Your task to perform on an android device: snooze an email in the gmail app Image 0: 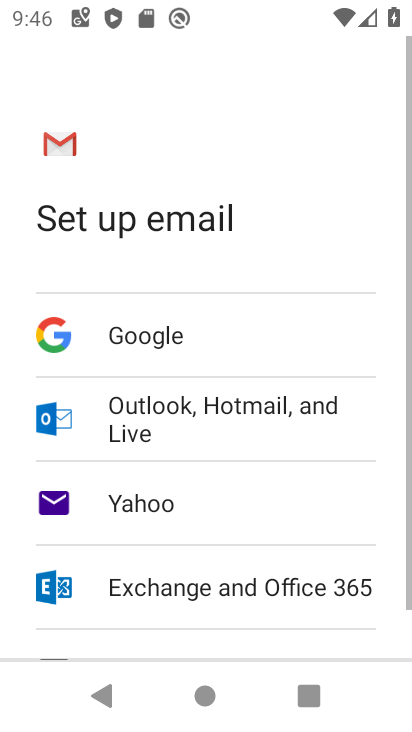
Step 0: press back button
Your task to perform on an android device: snooze an email in the gmail app Image 1: 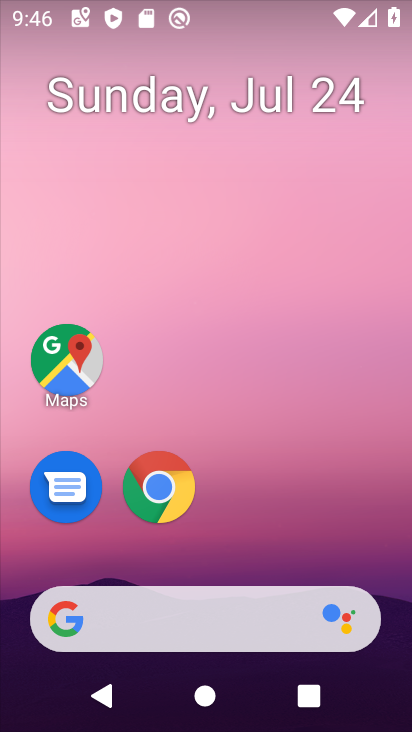
Step 1: drag from (245, 552) to (275, 5)
Your task to perform on an android device: snooze an email in the gmail app Image 2: 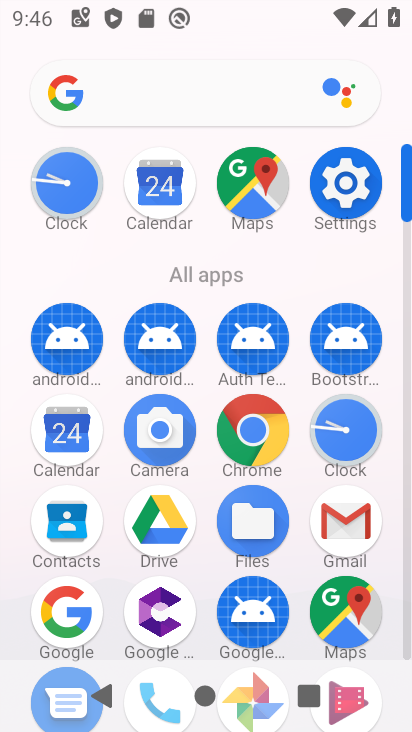
Step 2: click (355, 528)
Your task to perform on an android device: snooze an email in the gmail app Image 3: 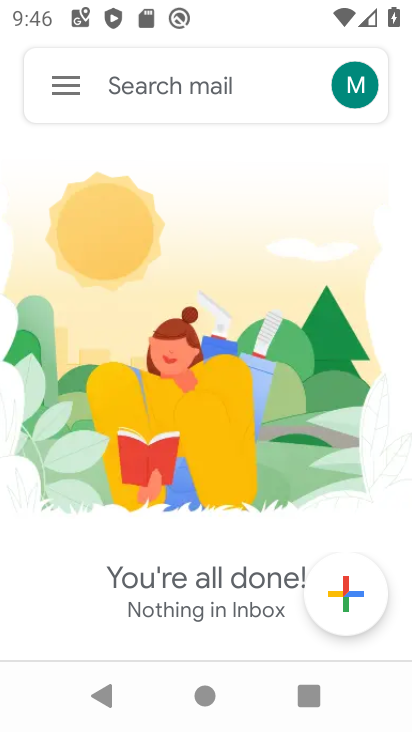
Step 3: click (55, 79)
Your task to perform on an android device: snooze an email in the gmail app Image 4: 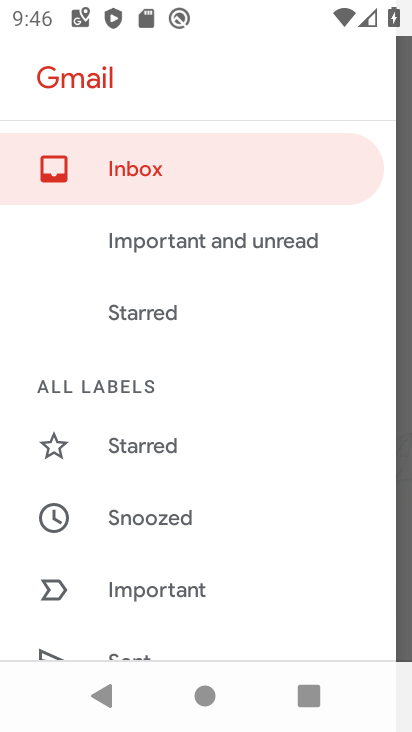
Step 4: drag from (178, 613) to (249, 156)
Your task to perform on an android device: snooze an email in the gmail app Image 5: 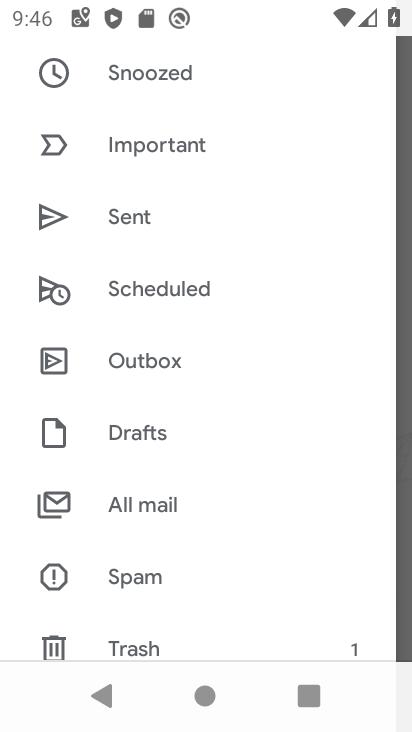
Step 5: click (147, 516)
Your task to perform on an android device: snooze an email in the gmail app Image 6: 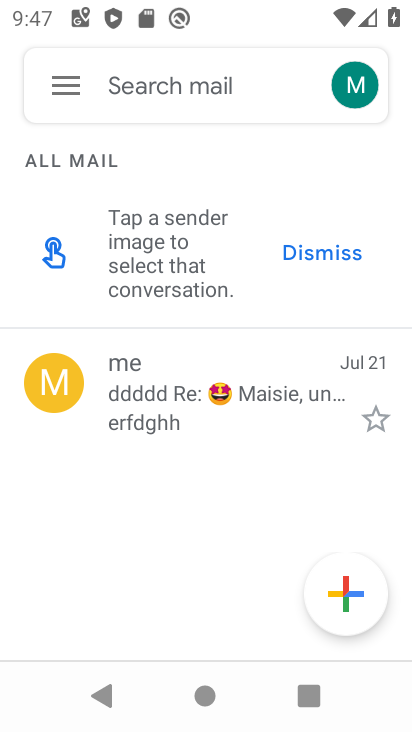
Step 6: click (145, 384)
Your task to perform on an android device: snooze an email in the gmail app Image 7: 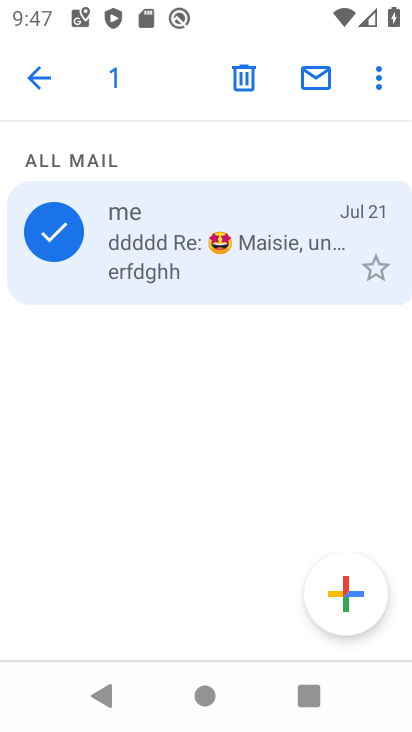
Step 7: click (383, 66)
Your task to perform on an android device: snooze an email in the gmail app Image 8: 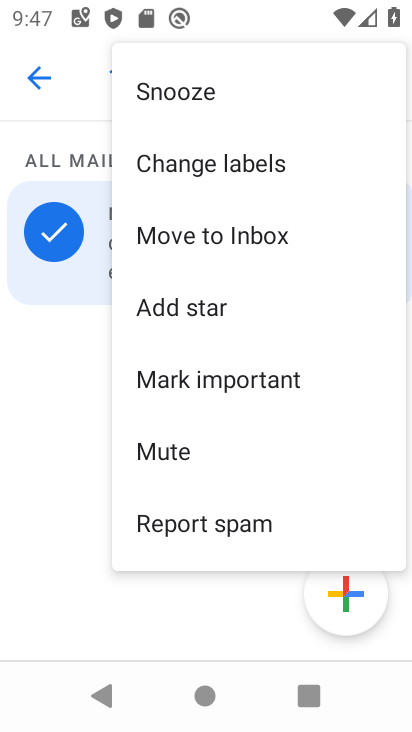
Step 8: click (200, 87)
Your task to perform on an android device: snooze an email in the gmail app Image 9: 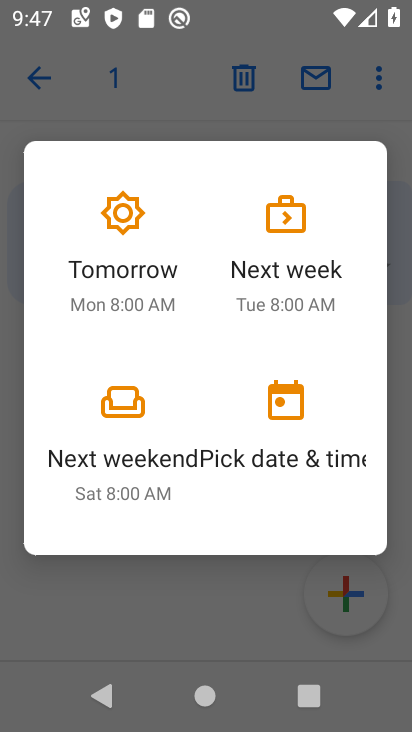
Step 9: click (262, 213)
Your task to perform on an android device: snooze an email in the gmail app Image 10: 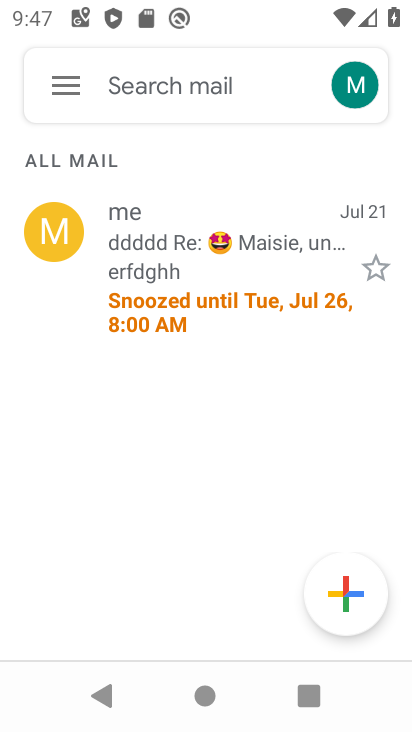
Step 10: task complete